Your task to perform on an android device: install app "Roku - Official Remote Control" Image 0: 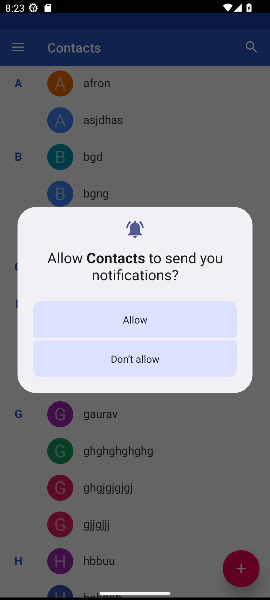
Step 0: press home button
Your task to perform on an android device: install app "Roku - Official Remote Control" Image 1: 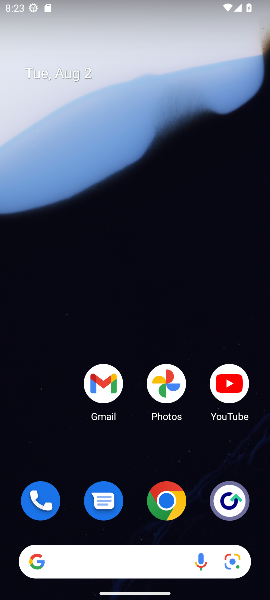
Step 1: drag from (148, 538) to (192, 137)
Your task to perform on an android device: install app "Roku - Official Remote Control" Image 2: 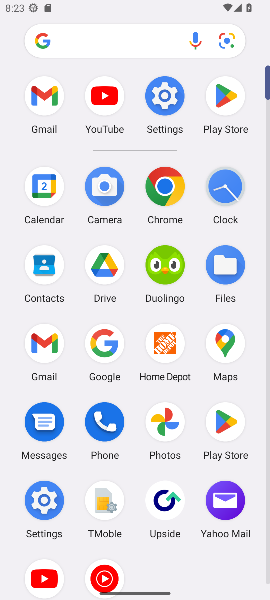
Step 2: click (228, 420)
Your task to perform on an android device: install app "Roku - Official Remote Control" Image 3: 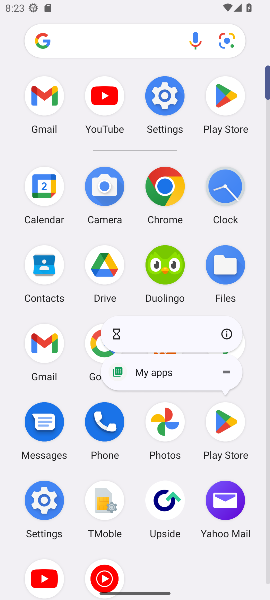
Step 3: click (232, 326)
Your task to perform on an android device: install app "Roku - Official Remote Control" Image 4: 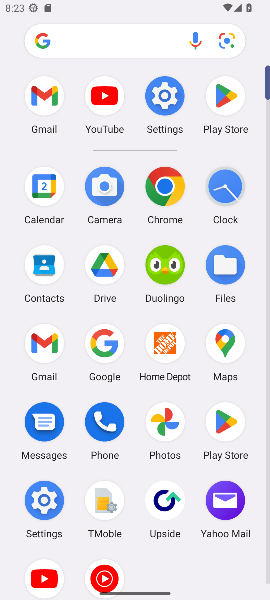
Step 4: click (218, 93)
Your task to perform on an android device: install app "Roku - Official Remote Control" Image 5: 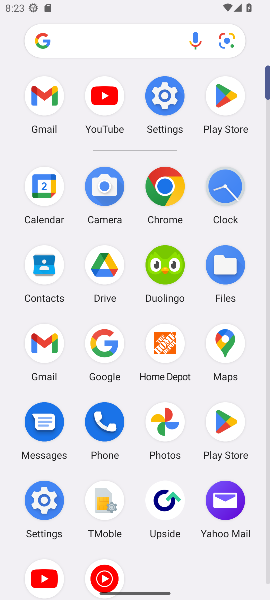
Step 5: click (219, 94)
Your task to perform on an android device: install app "Roku - Official Remote Control" Image 6: 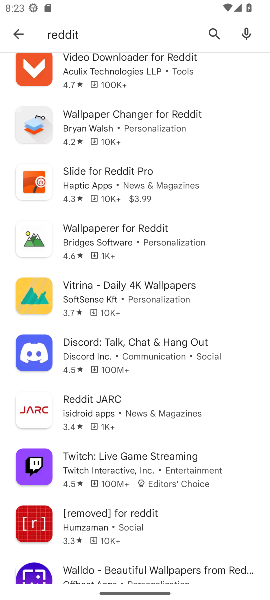
Step 6: click (211, 34)
Your task to perform on an android device: install app "Roku - Official Remote Control" Image 7: 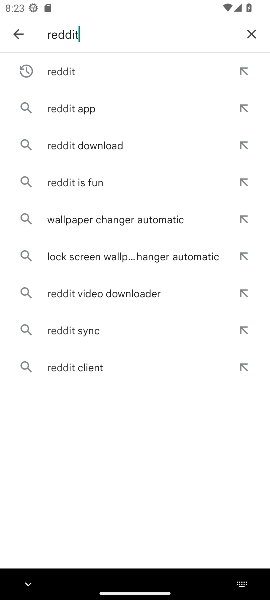
Step 7: click (249, 26)
Your task to perform on an android device: install app "Roku - Official Remote Control" Image 8: 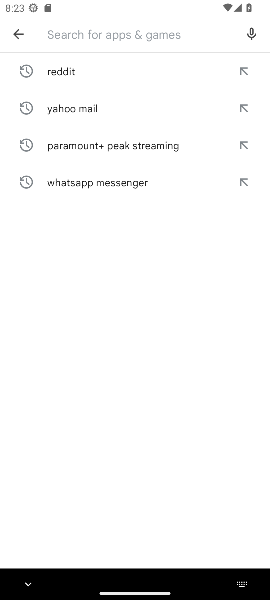
Step 8: type "Roku"
Your task to perform on an android device: install app "Roku - Official Remote Control" Image 9: 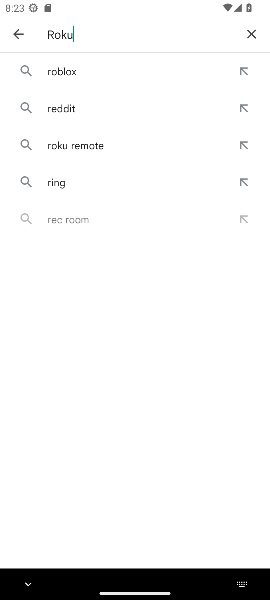
Step 9: type ""
Your task to perform on an android device: install app "Roku - Official Remote Control" Image 10: 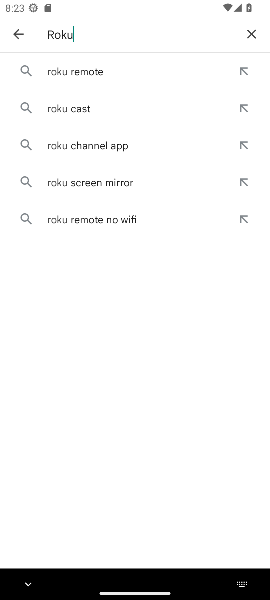
Step 10: click (83, 76)
Your task to perform on an android device: install app "Roku - Official Remote Control" Image 11: 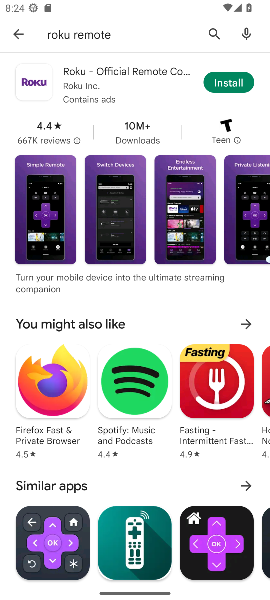
Step 11: click (226, 86)
Your task to perform on an android device: install app "Roku - Official Remote Control" Image 12: 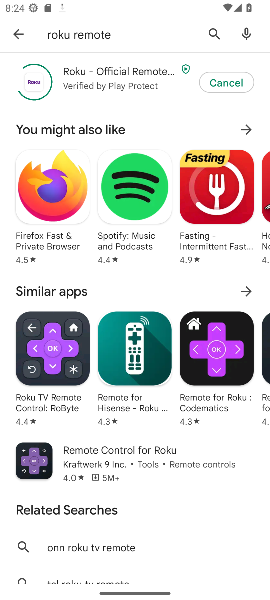
Step 12: click (99, 67)
Your task to perform on an android device: install app "Roku - Official Remote Control" Image 13: 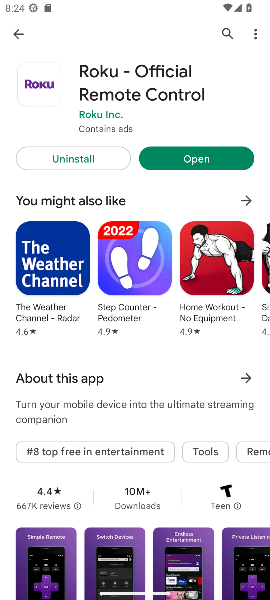
Step 13: task complete